Your task to perform on an android device: When is my next meeting? Image 0: 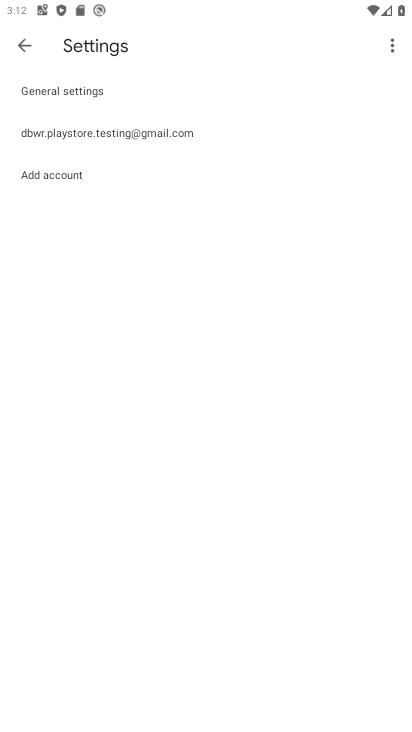
Step 0: press back button
Your task to perform on an android device: When is my next meeting? Image 1: 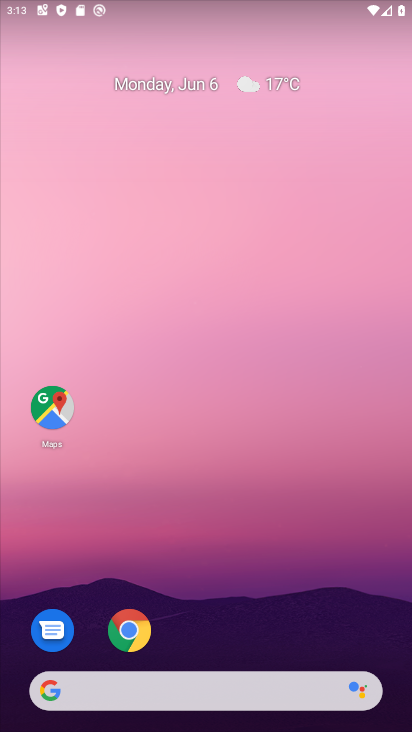
Step 1: click (178, 693)
Your task to perform on an android device: When is my next meeting? Image 2: 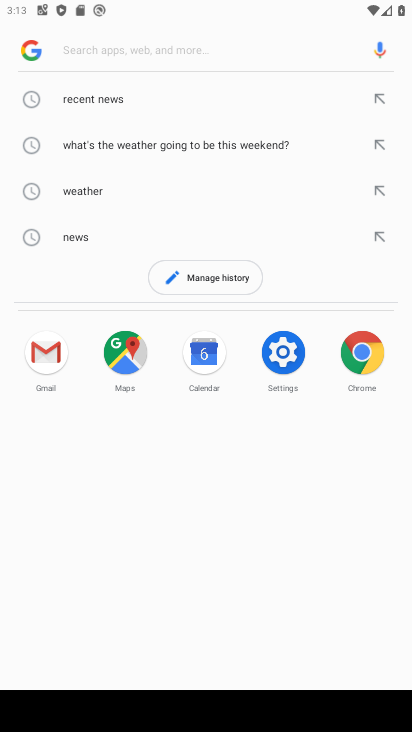
Step 2: press back button
Your task to perform on an android device: When is my next meeting? Image 3: 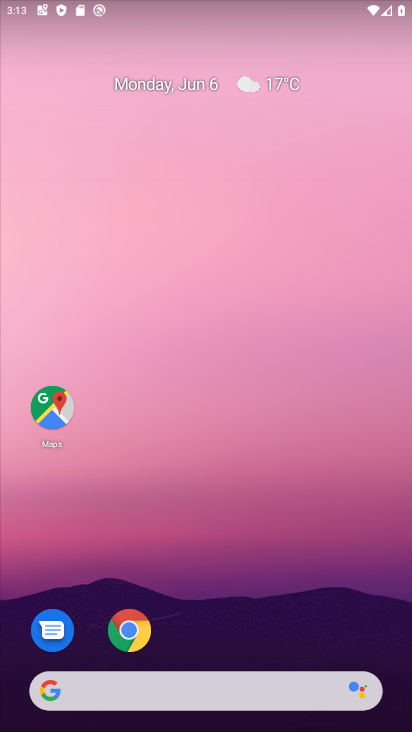
Step 3: drag from (258, 642) to (332, 87)
Your task to perform on an android device: When is my next meeting? Image 4: 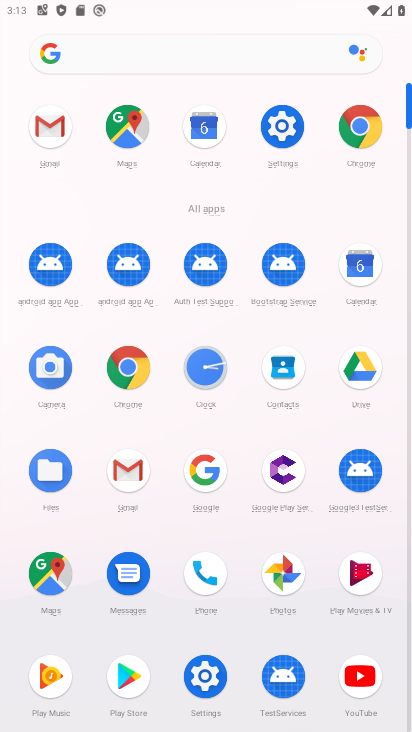
Step 4: click (364, 259)
Your task to perform on an android device: When is my next meeting? Image 5: 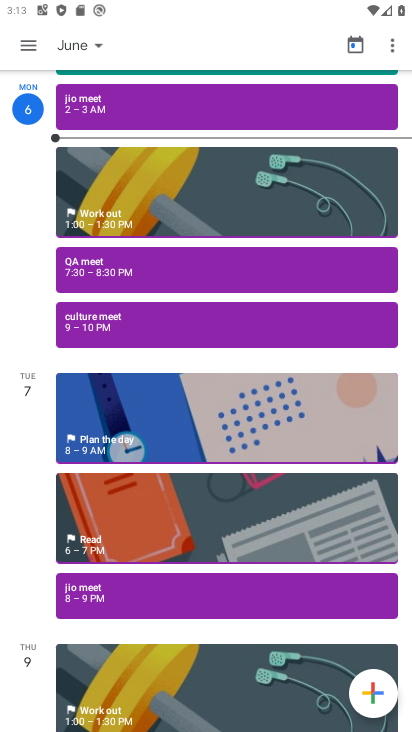
Step 5: click (112, 586)
Your task to perform on an android device: When is my next meeting? Image 6: 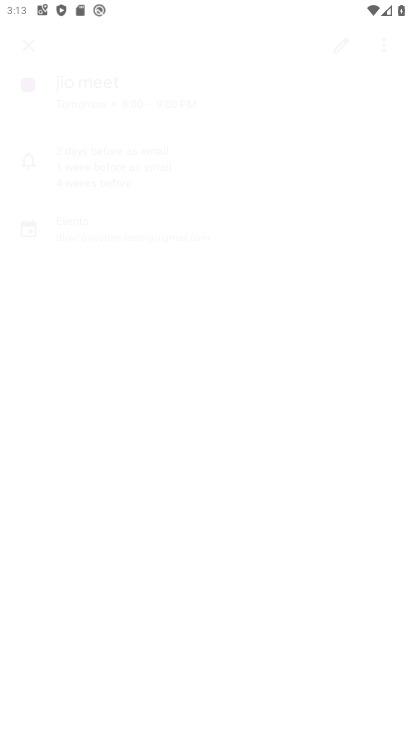
Step 6: task complete